Your task to perform on an android device: Is it going to rain tomorrow? Image 0: 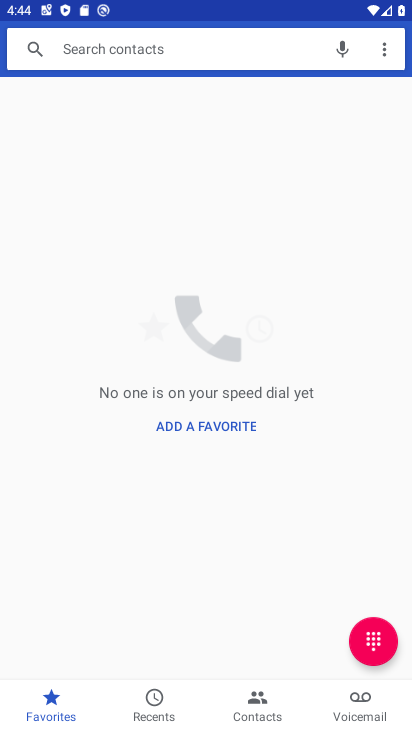
Step 0: drag from (256, 12) to (247, 416)
Your task to perform on an android device: Is it going to rain tomorrow? Image 1: 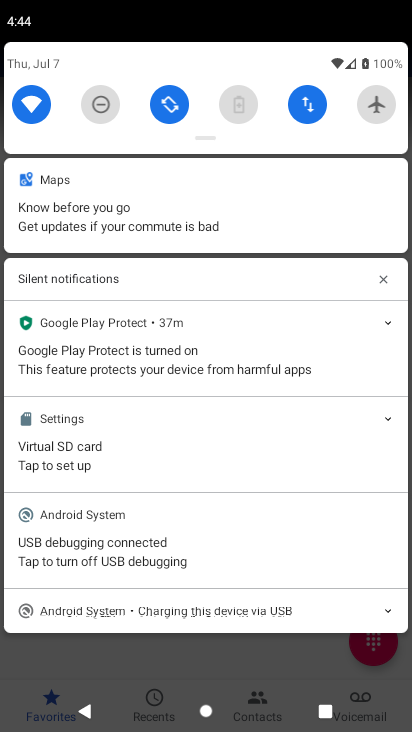
Step 1: press home button
Your task to perform on an android device: Is it going to rain tomorrow? Image 2: 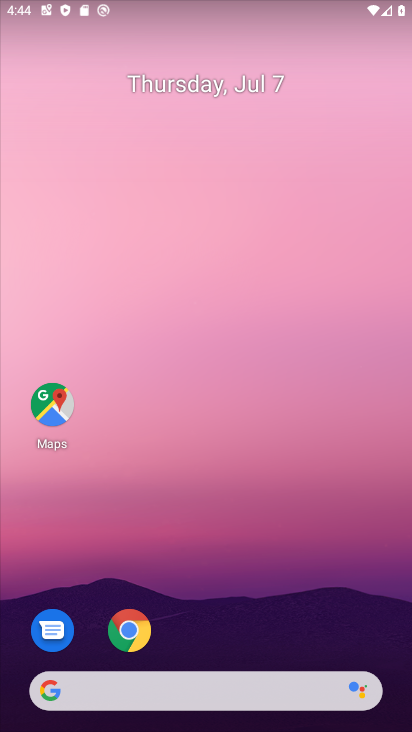
Step 2: click (174, 694)
Your task to perform on an android device: Is it going to rain tomorrow? Image 3: 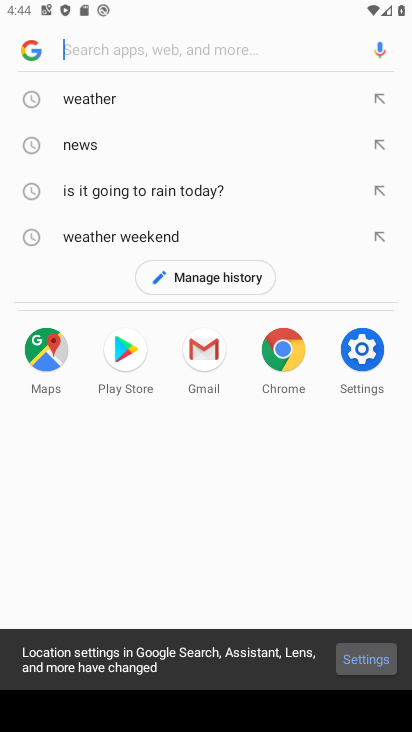
Step 3: click (105, 112)
Your task to perform on an android device: Is it going to rain tomorrow? Image 4: 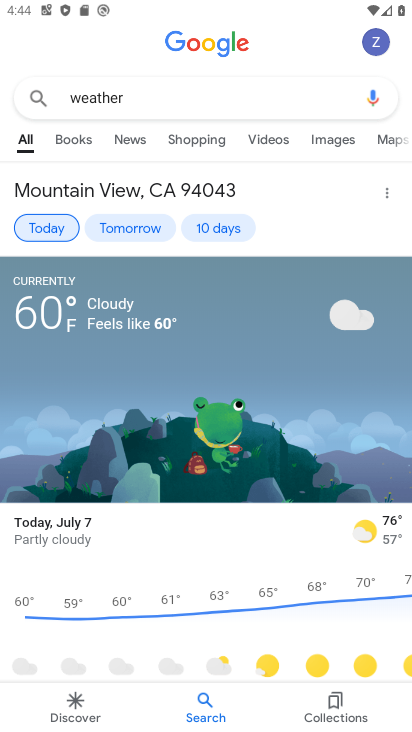
Step 4: click (144, 221)
Your task to perform on an android device: Is it going to rain tomorrow? Image 5: 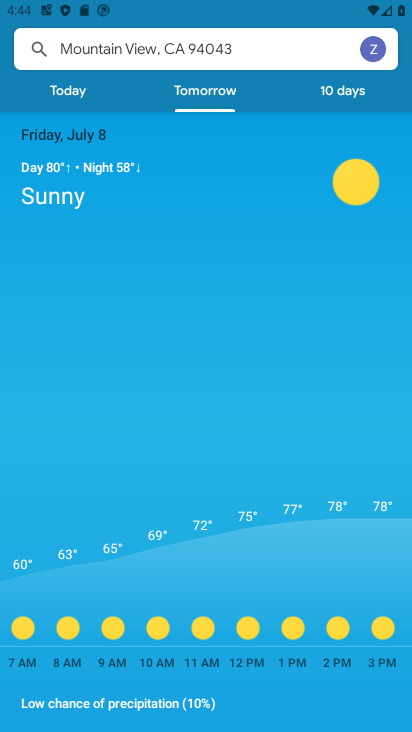
Step 5: task complete